Your task to perform on an android device: toggle improve location accuracy Image 0: 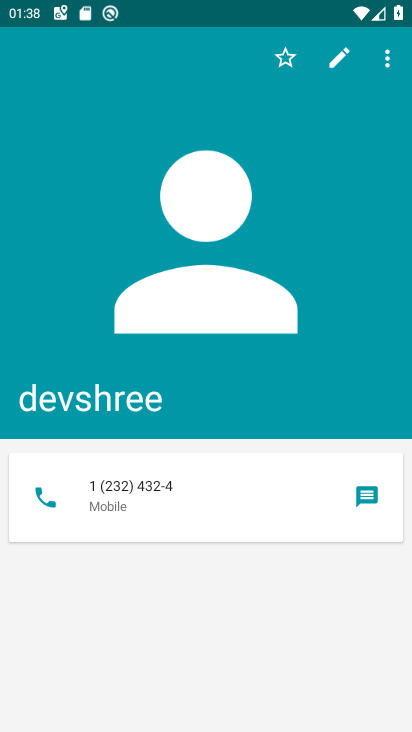
Step 0: press home button
Your task to perform on an android device: toggle improve location accuracy Image 1: 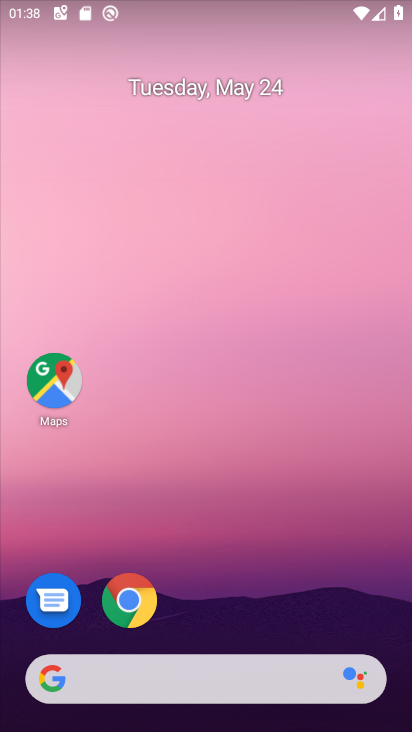
Step 1: drag from (311, 536) to (334, 243)
Your task to perform on an android device: toggle improve location accuracy Image 2: 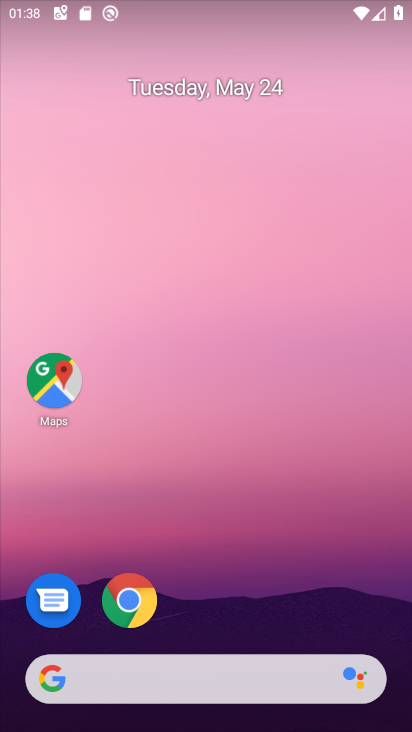
Step 2: drag from (227, 560) to (214, 88)
Your task to perform on an android device: toggle improve location accuracy Image 3: 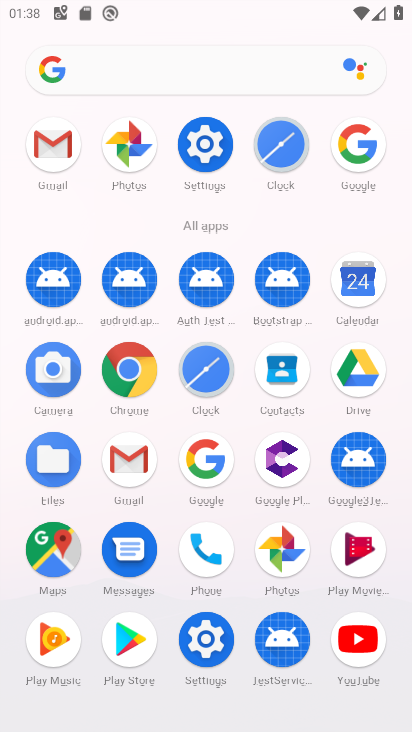
Step 3: click (191, 141)
Your task to perform on an android device: toggle improve location accuracy Image 4: 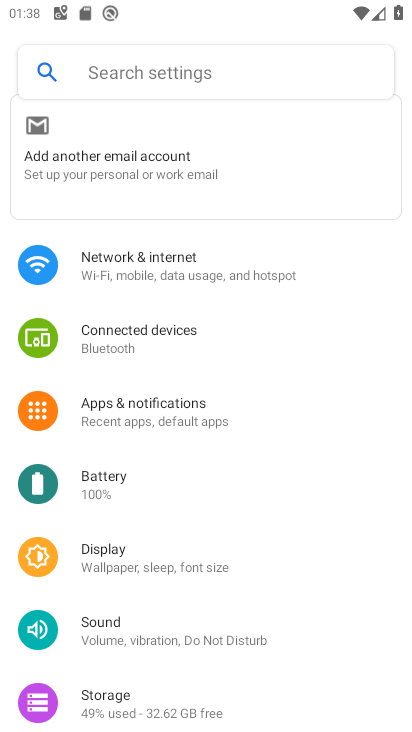
Step 4: drag from (170, 502) to (174, 276)
Your task to perform on an android device: toggle improve location accuracy Image 5: 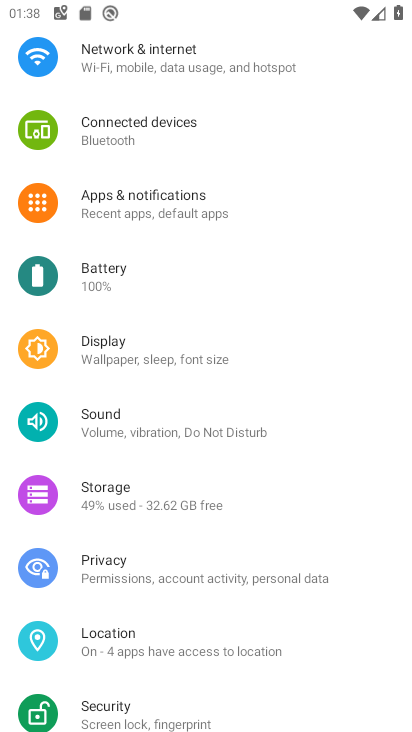
Step 5: drag from (207, 602) to (191, 411)
Your task to perform on an android device: toggle improve location accuracy Image 6: 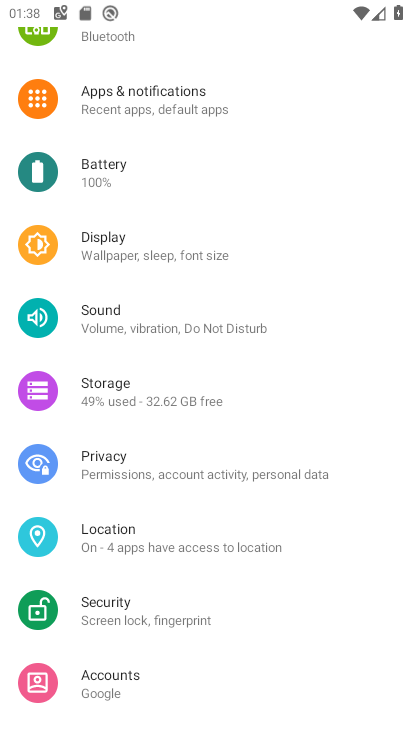
Step 6: click (208, 525)
Your task to perform on an android device: toggle improve location accuracy Image 7: 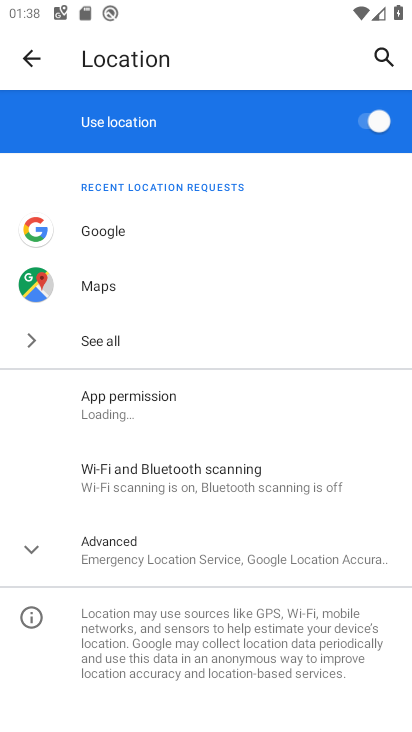
Step 7: click (203, 545)
Your task to perform on an android device: toggle improve location accuracy Image 8: 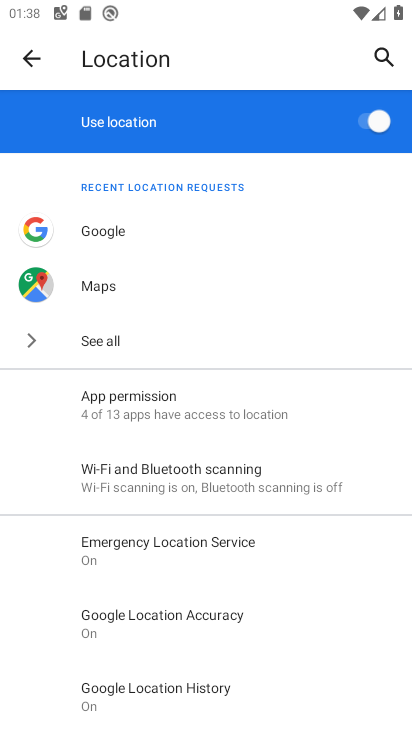
Step 8: click (234, 614)
Your task to perform on an android device: toggle improve location accuracy Image 9: 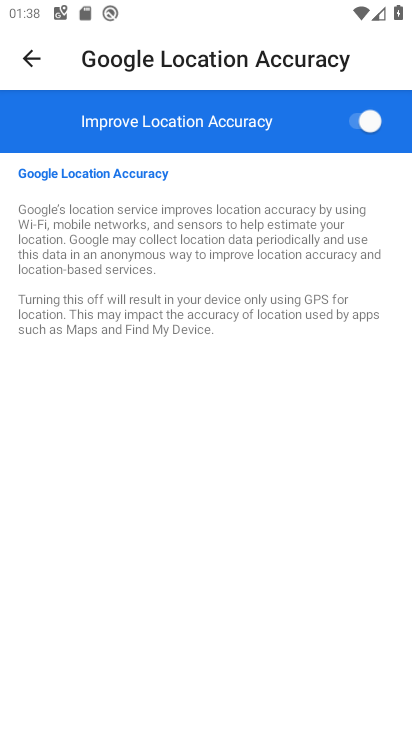
Step 9: click (346, 118)
Your task to perform on an android device: toggle improve location accuracy Image 10: 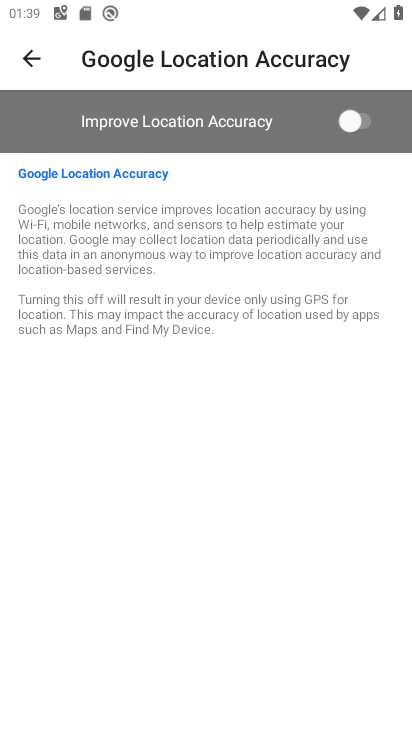
Step 10: task complete